Your task to perform on an android device: Search for vegetarian restaurants on Maps Image 0: 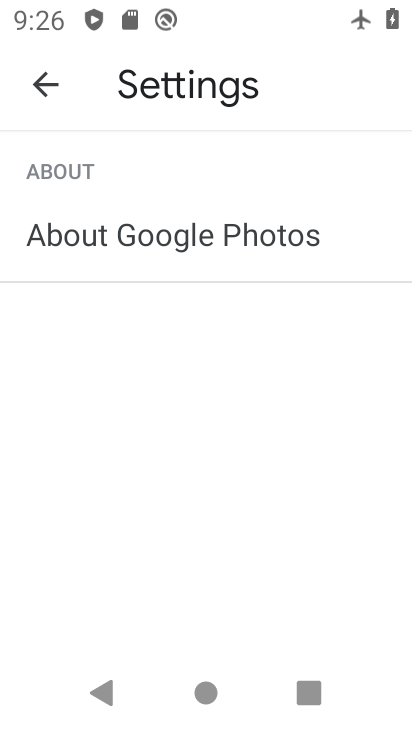
Step 0: press home button
Your task to perform on an android device: Search for vegetarian restaurants on Maps Image 1: 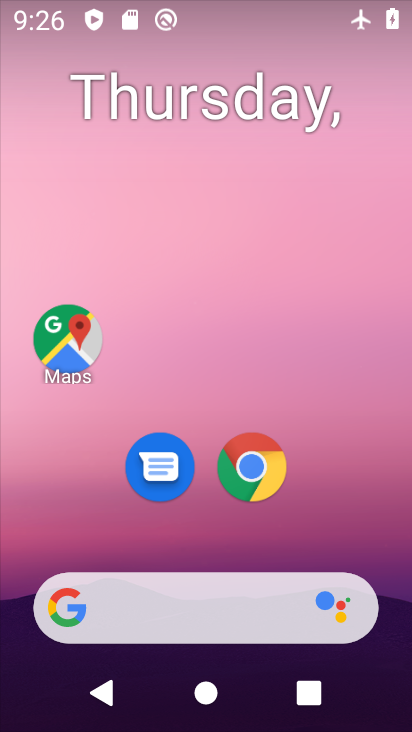
Step 1: drag from (355, 518) to (357, 12)
Your task to perform on an android device: Search for vegetarian restaurants on Maps Image 2: 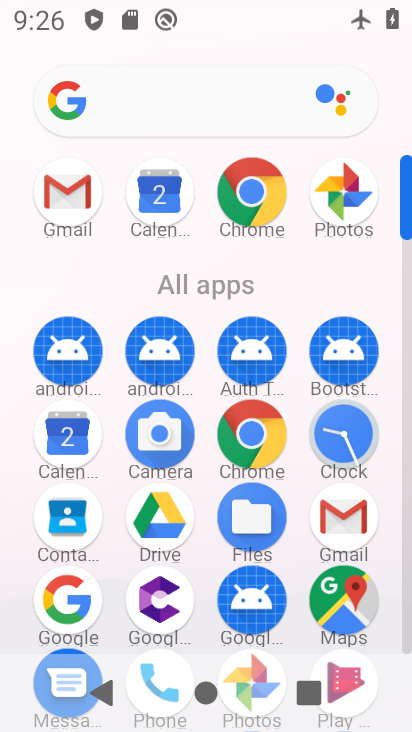
Step 2: click (343, 574)
Your task to perform on an android device: Search for vegetarian restaurants on Maps Image 3: 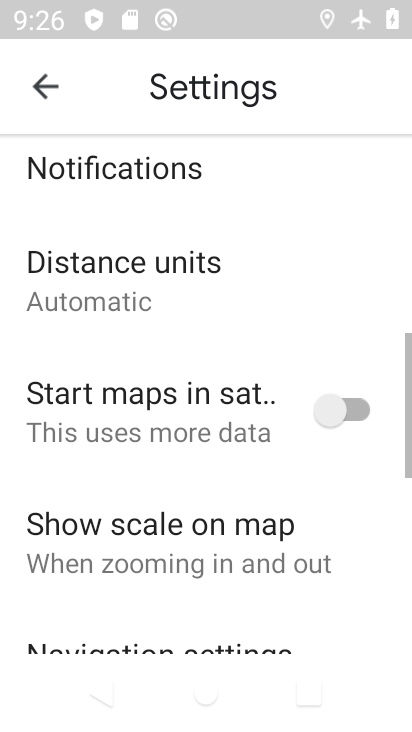
Step 3: click (58, 91)
Your task to perform on an android device: Search for vegetarian restaurants on Maps Image 4: 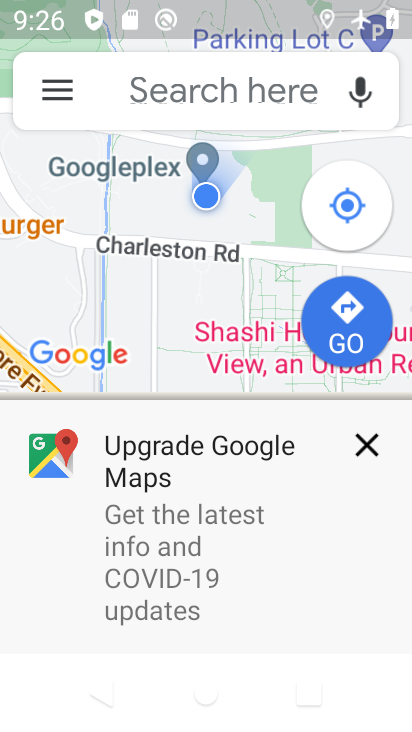
Step 4: click (177, 85)
Your task to perform on an android device: Search for vegetarian restaurants on Maps Image 5: 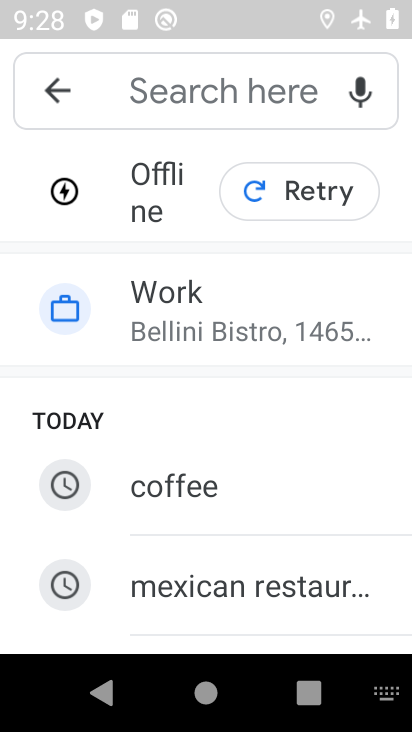
Step 5: type "vegetariaon resturents"
Your task to perform on an android device: Search for vegetarian restaurants on Maps Image 6: 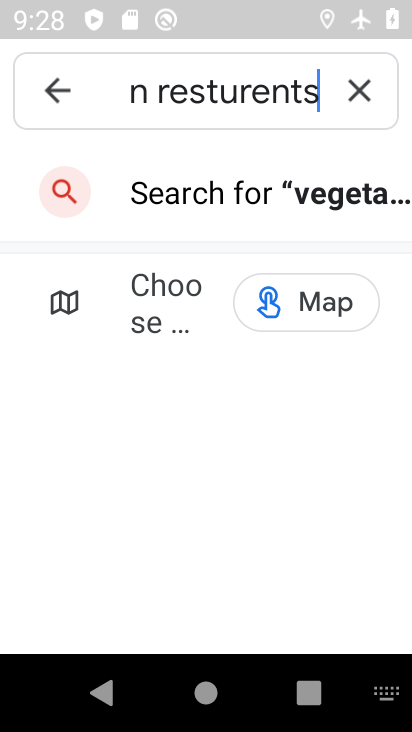
Step 6: task complete